Your task to perform on an android device: all mails in gmail Image 0: 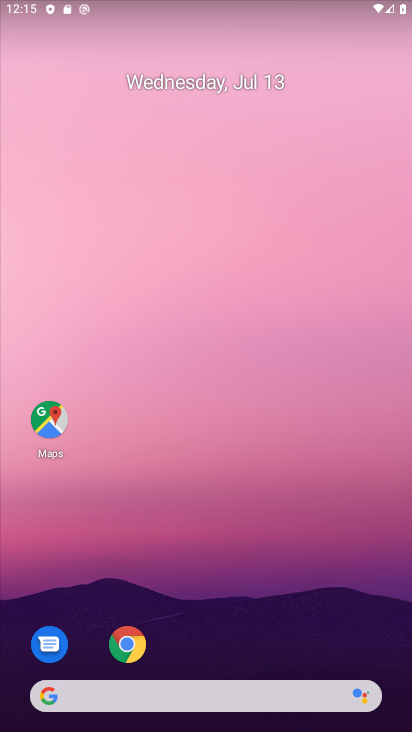
Step 0: drag from (349, 617) to (220, 42)
Your task to perform on an android device: all mails in gmail Image 1: 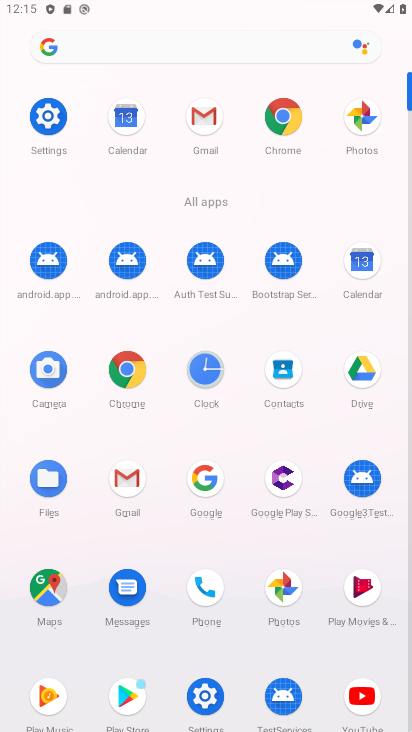
Step 1: click (205, 118)
Your task to perform on an android device: all mails in gmail Image 2: 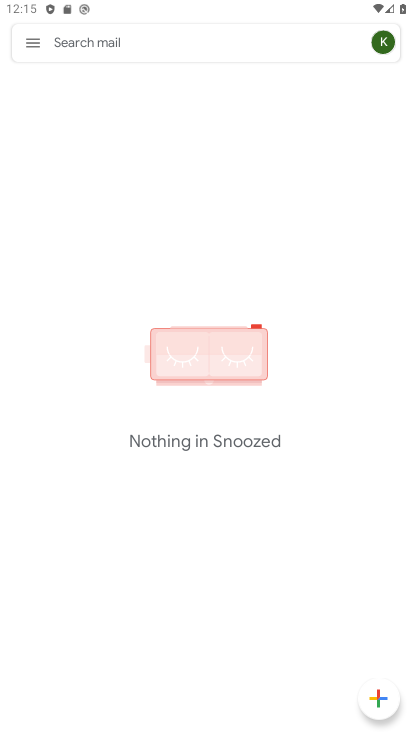
Step 2: click (32, 36)
Your task to perform on an android device: all mails in gmail Image 3: 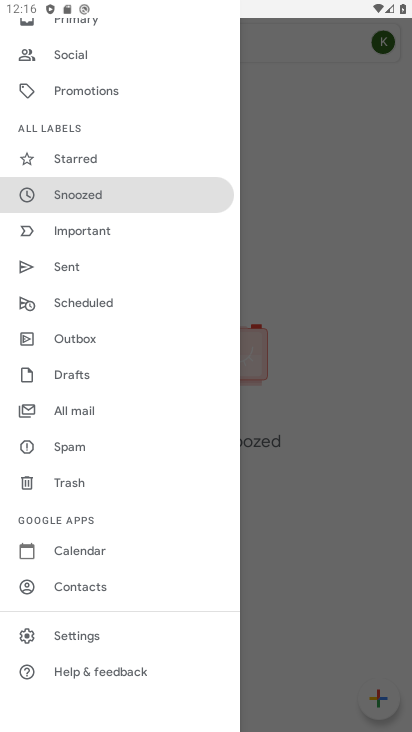
Step 3: click (72, 401)
Your task to perform on an android device: all mails in gmail Image 4: 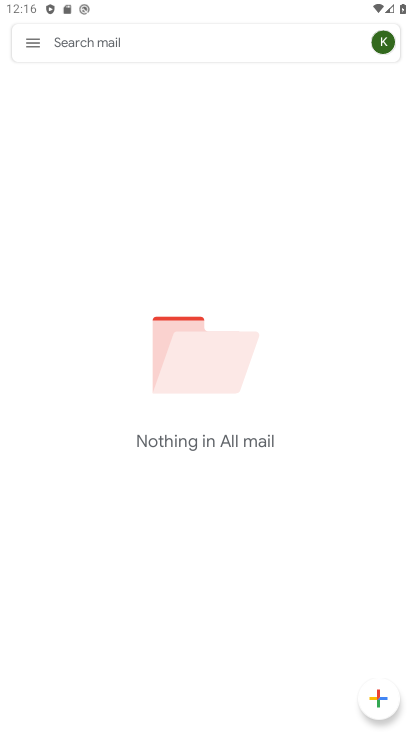
Step 4: task complete